Your task to perform on an android device: open app "AliExpress" Image 0: 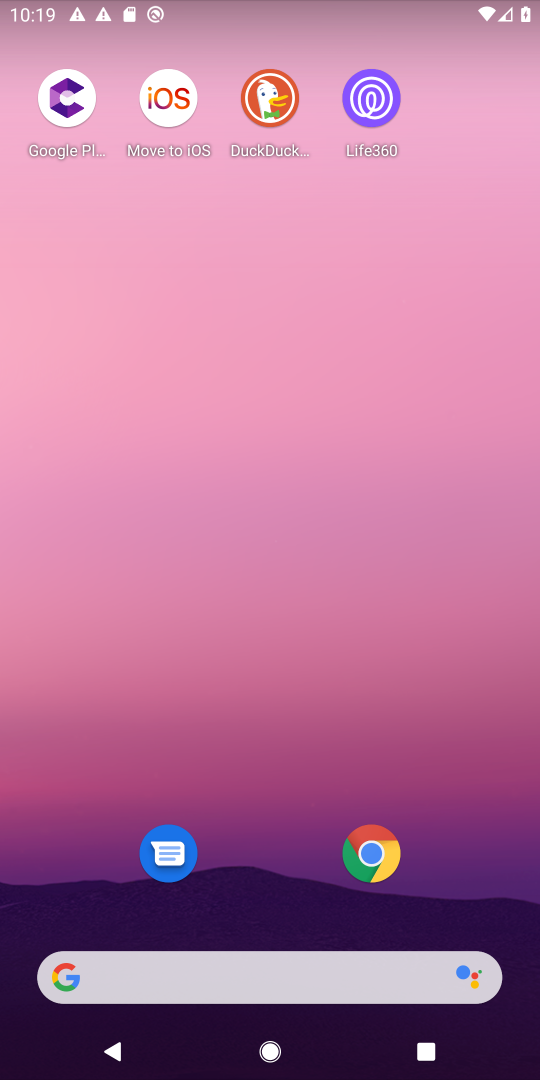
Step 0: drag from (310, 1027) to (301, 43)
Your task to perform on an android device: open app "AliExpress" Image 1: 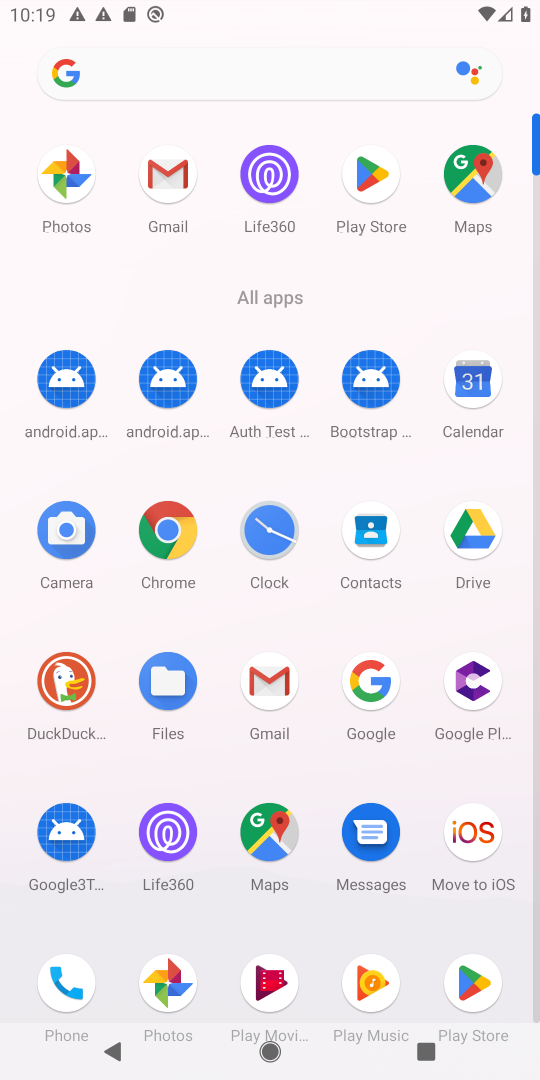
Step 1: click (472, 978)
Your task to perform on an android device: open app "AliExpress" Image 2: 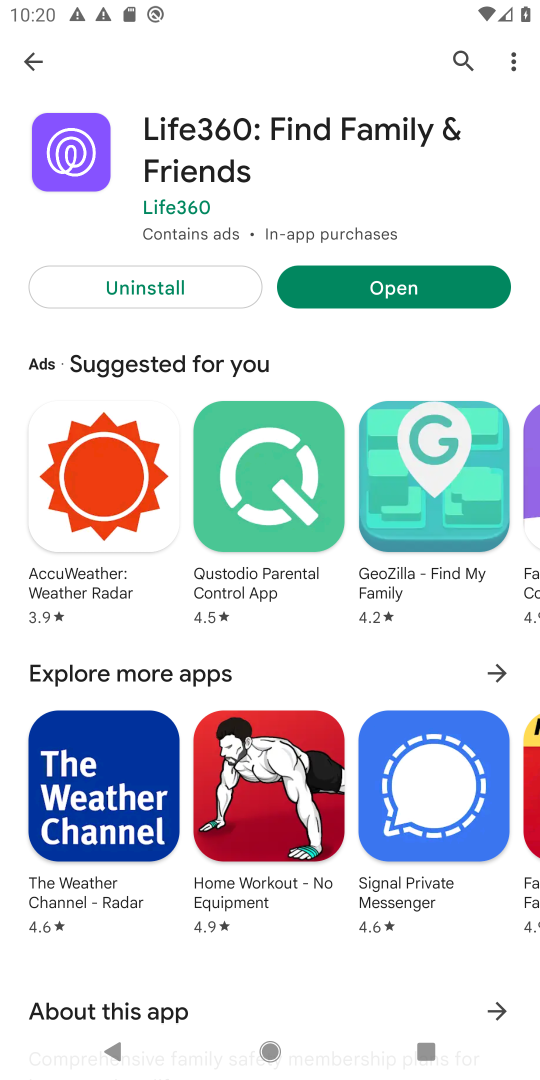
Step 2: click (469, 53)
Your task to perform on an android device: open app "AliExpress" Image 3: 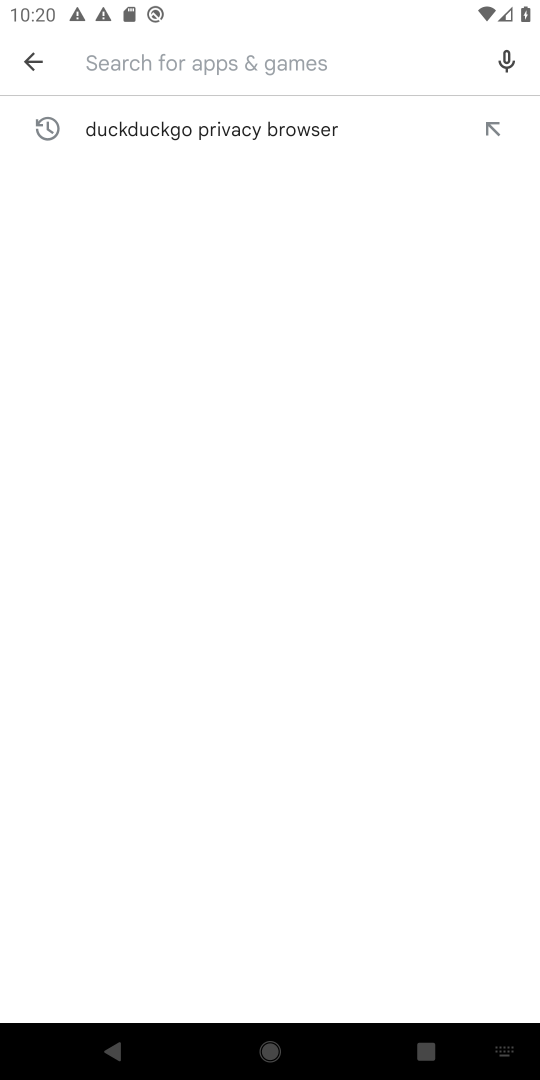
Step 3: type "AliExpress"
Your task to perform on an android device: open app "AliExpress" Image 4: 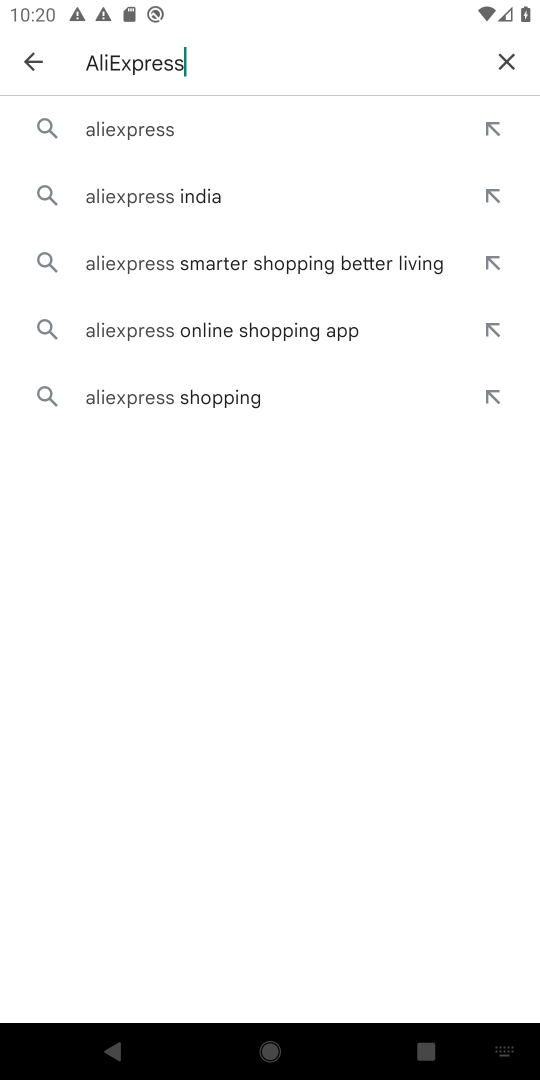
Step 4: click (137, 130)
Your task to perform on an android device: open app "AliExpress" Image 5: 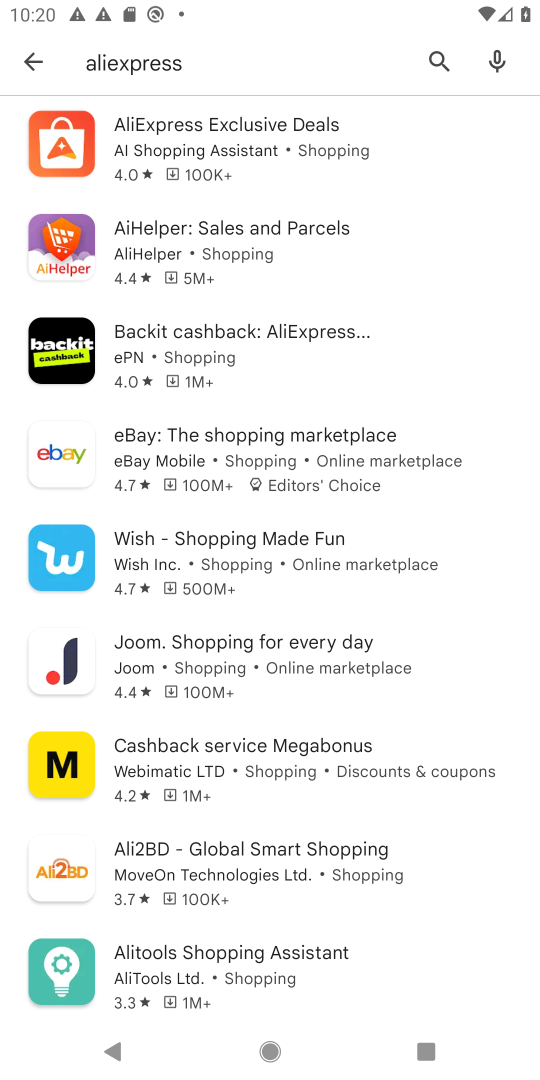
Step 5: click (159, 131)
Your task to perform on an android device: open app "AliExpress" Image 6: 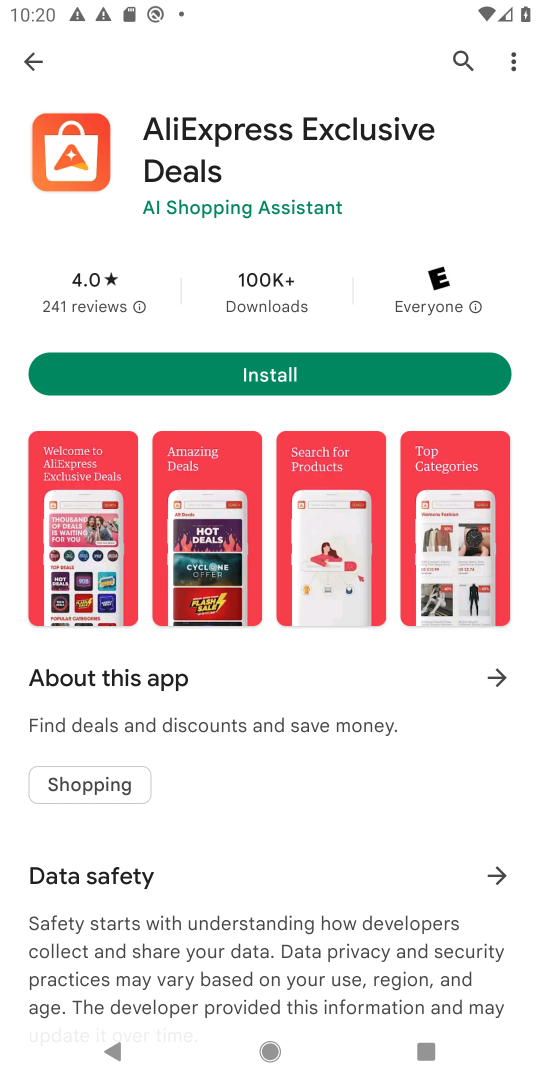
Step 6: task complete